Your task to perform on an android device: set the timer Image 0: 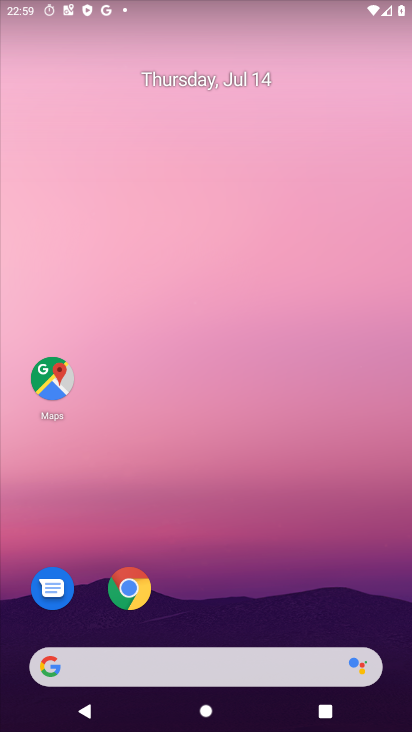
Step 0: drag from (195, 588) to (215, 101)
Your task to perform on an android device: set the timer Image 1: 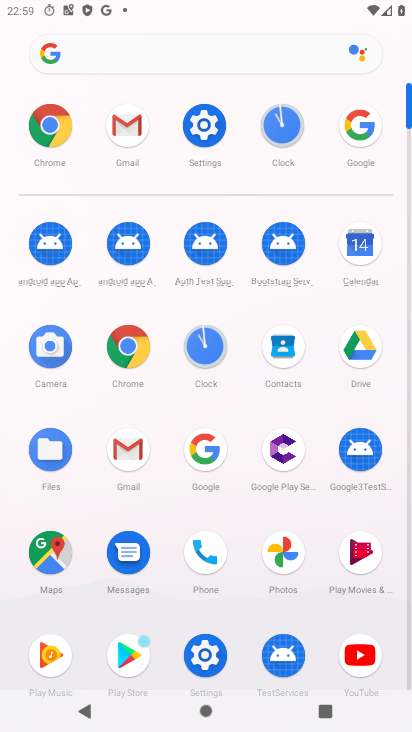
Step 1: click (206, 347)
Your task to perform on an android device: set the timer Image 2: 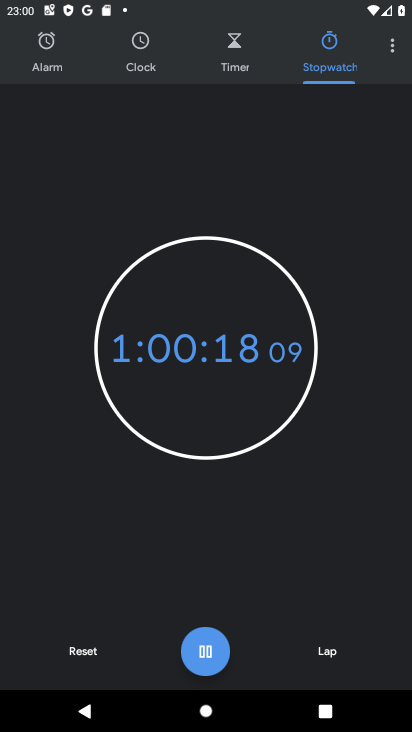
Step 2: click (243, 57)
Your task to perform on an android device: set the timer Image 3: 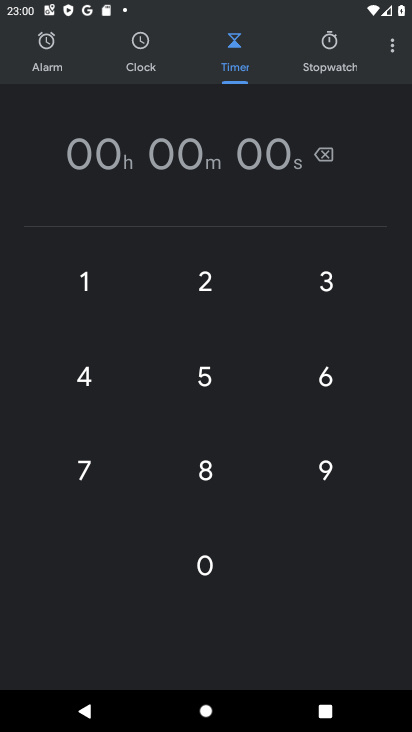
Step 3: click (202, 282)
Your task to perform on an android device: set the timer Image 4: 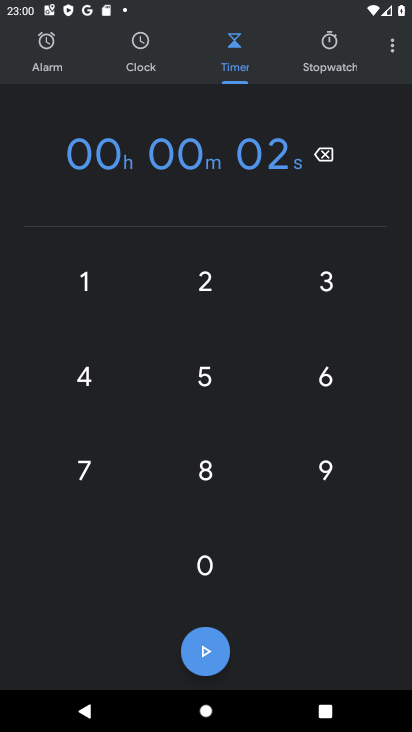
Step 4: click (202, 282)
Your task to perform on an android device: set the timer Image 5: 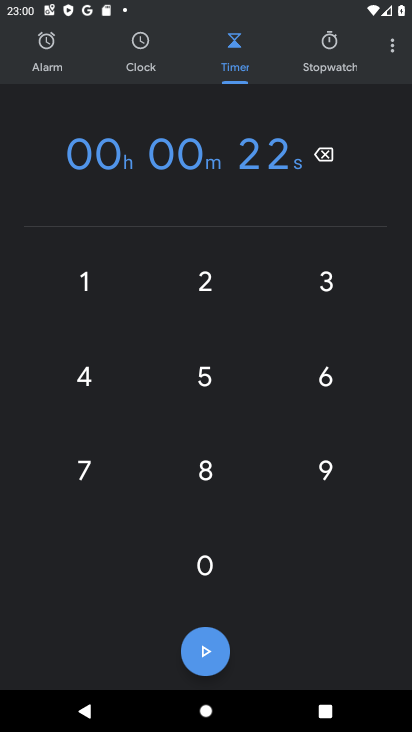
Step 5: task complete